Your task to perform on an android device: Check the news Image 0: 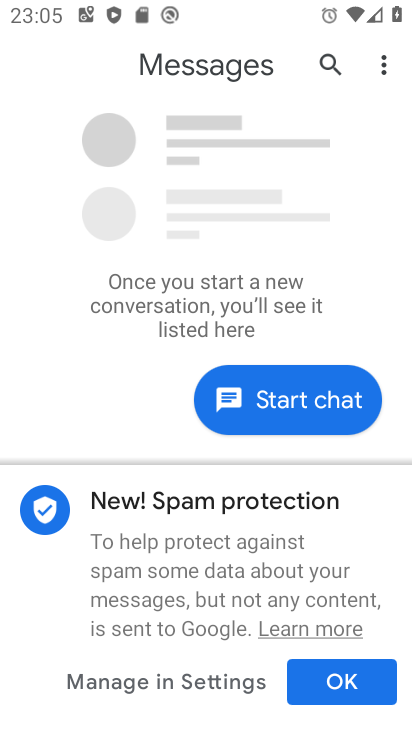
Step 0: press home button
Your task to perform on an android device: Check the news Image 1: 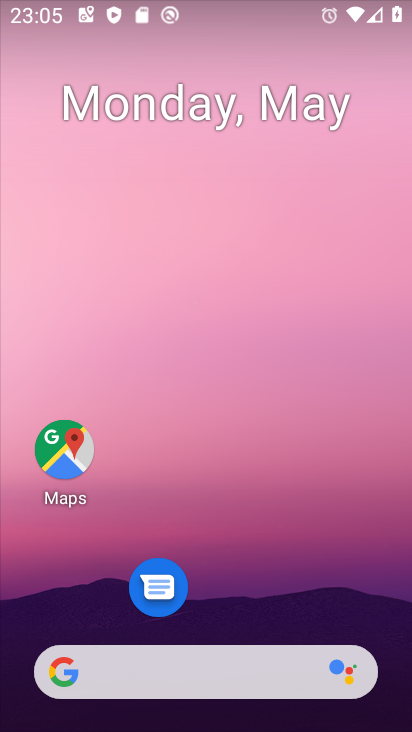
Step 1: click (200, 671)
Your task to perform on an android device: Check the news Image 2: 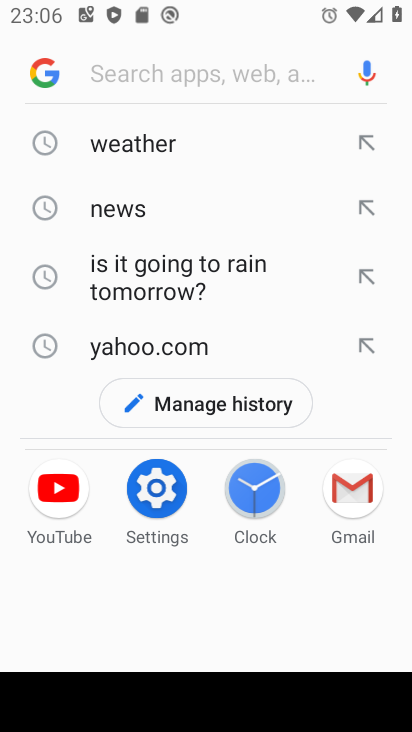
Step 2: click (126, 208)
Your task to perform on an android device: Check the news Image 3: 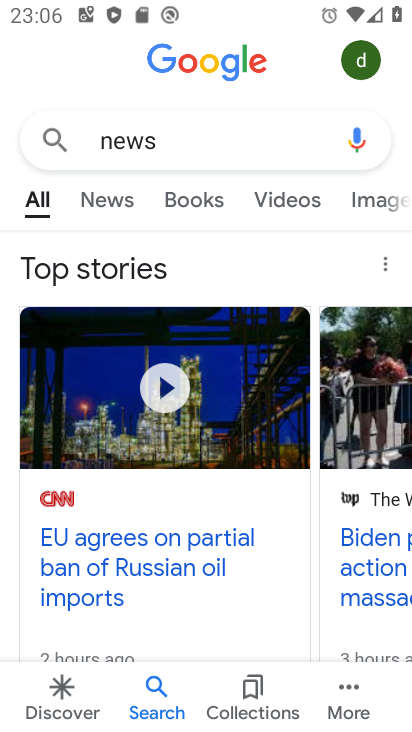
Step 3: task complete